Your task to perform on an android device: turn off picture-in-picture Image 0: 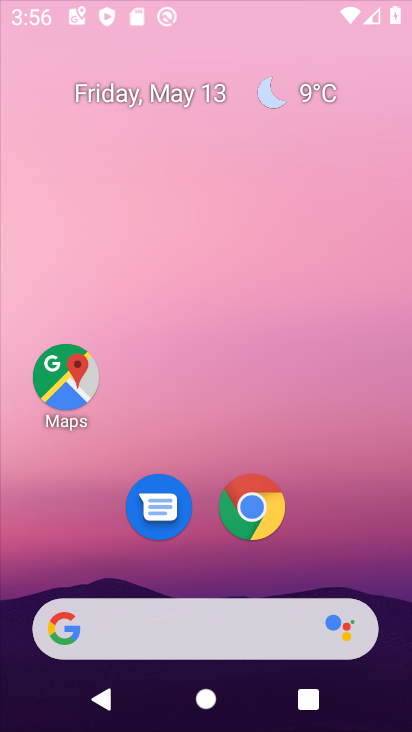
Step 0: drag from (364, 299) to (346, 2)
Your task to perform on an android device: turn off picture-in-picture Image 1: 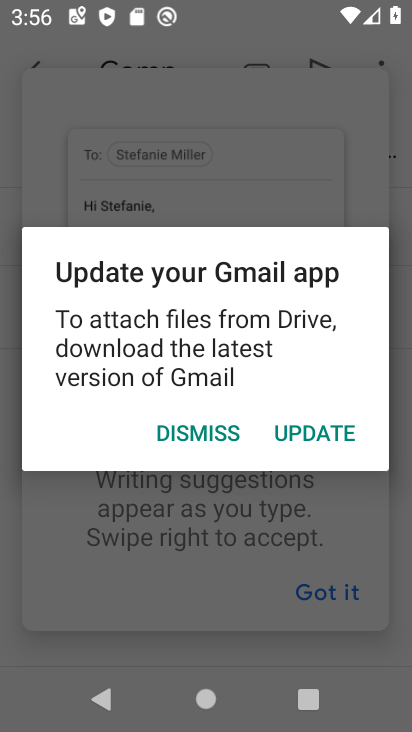
Step 1: press home button
Your task to perform on an android device: turn off picture-in-picture Image 2: 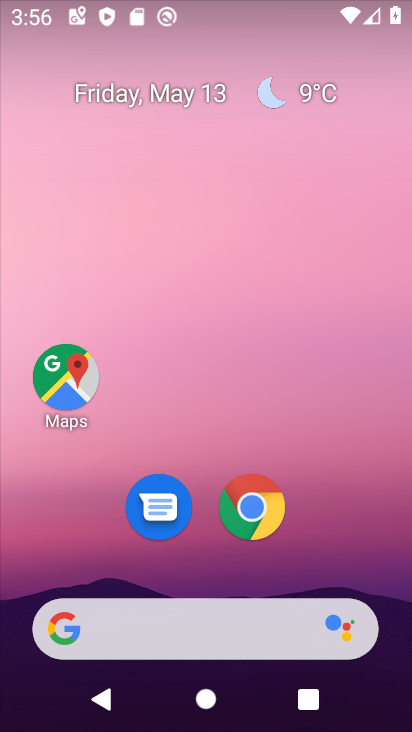
Step 2: click (273, 523)
Your task to perform on an android device: turn off picture-in-picture Image 3: 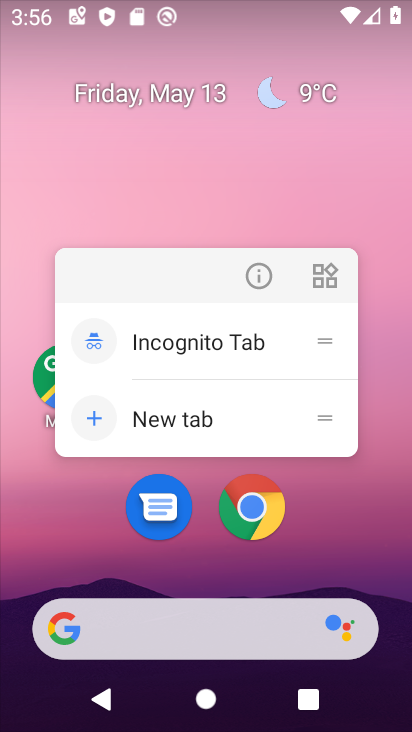
Step 3: click (251, 284)
Your task to perform on an android device: turn off picture-in-picture Image 4: 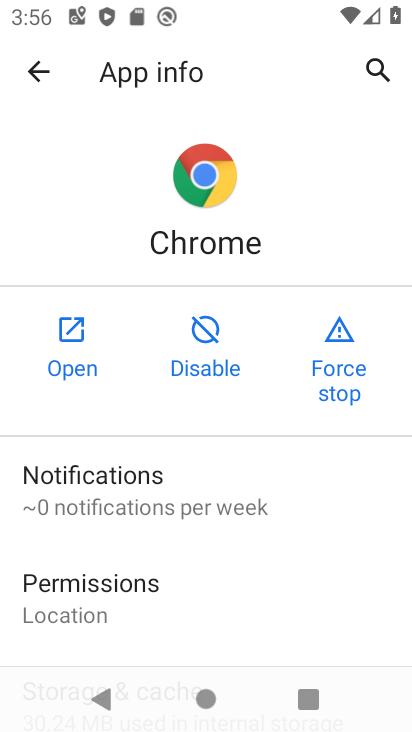
Step 4: drag from (216, 563) to (260, 10)
Your task to perform on an android device: turn off picture-in-picture Image 5: 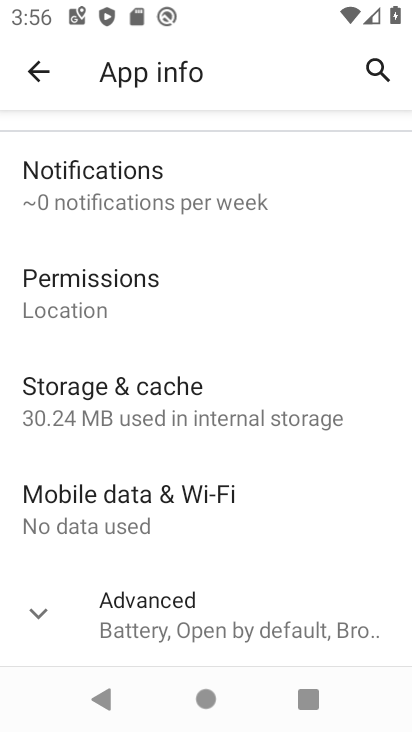
Step 5: click (157, 655)
Your task to perform on an android device: turn off picture-in-picture Image 6: 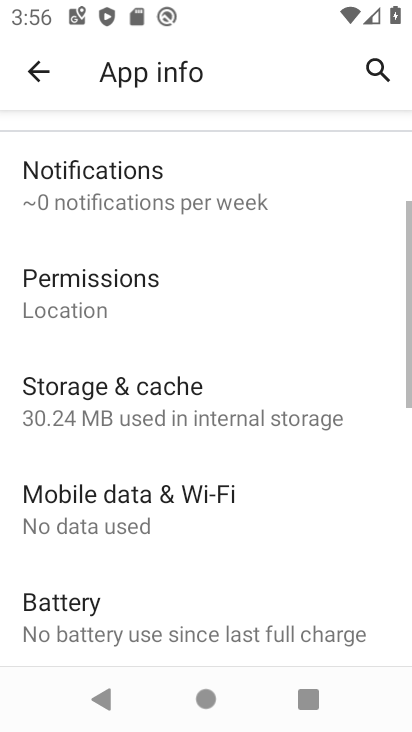
Step 6: drag from (156, 542) to (160, 167)
Your task to perform on an android device: turn off picture-in-picture Image 7: 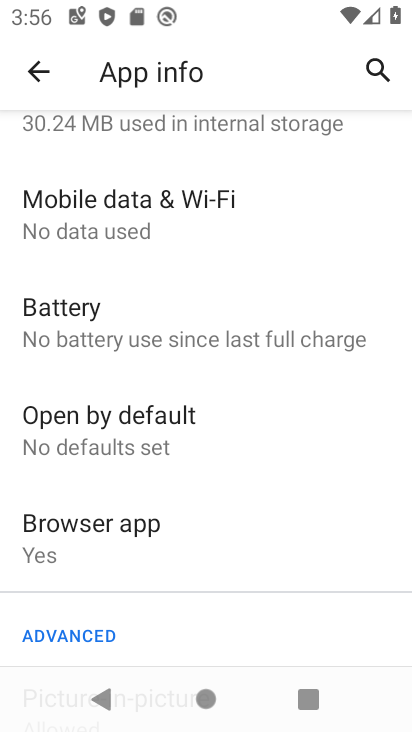
Step 7: drag from (148, 573) to (148, 183)
Your task to perform on an android device: turn off picture-in-picture Image 8: 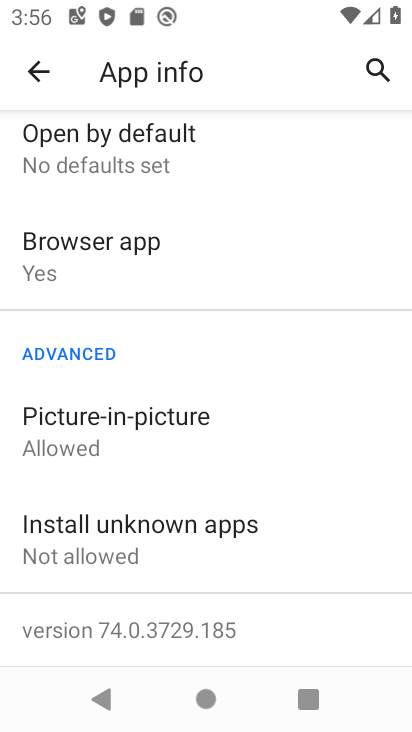
Step 8: click (56, 437)
Your task to perform on an android device: turn off picture-in-picture Image 9: 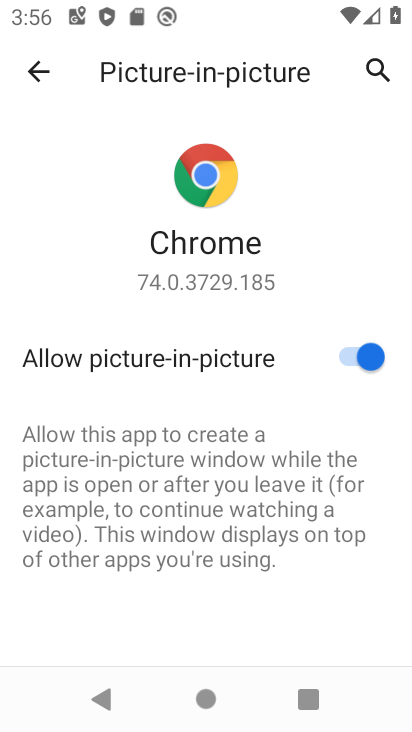
Step 9: click (371, 362)
Your task to perform on an android device: turn off picture-in-picture Image 10: 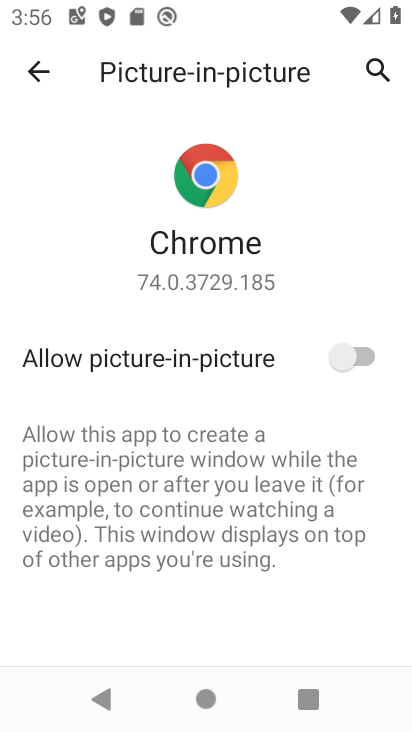
Step 10: task complete